Your task to perform on an android device: refresh tabs in the chrome app Image 0: 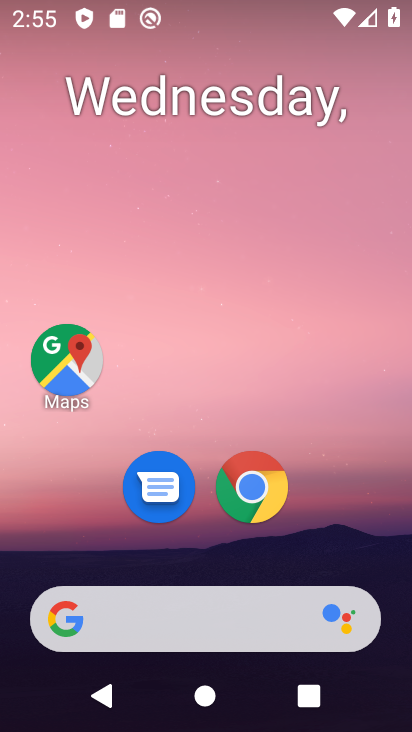
Step 0: click (354, 531)
Your task to perform on an android device: refresh tabs in the chrome app Image 1: 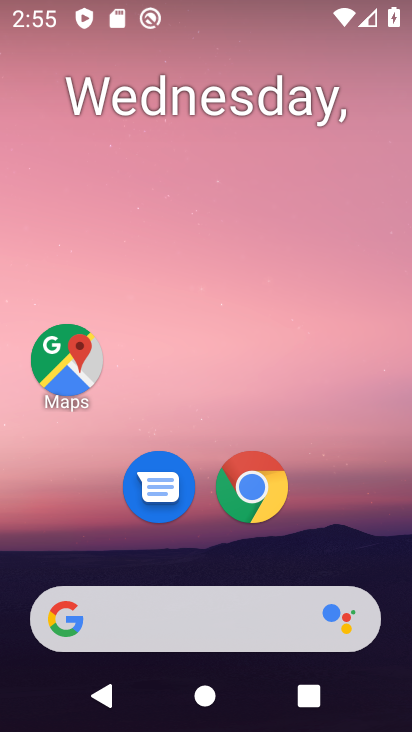
Step 1: drag from (353, 532) to (350, 156)
Your task to perform on an android device: refresh tabs in the chrome app Image 2: 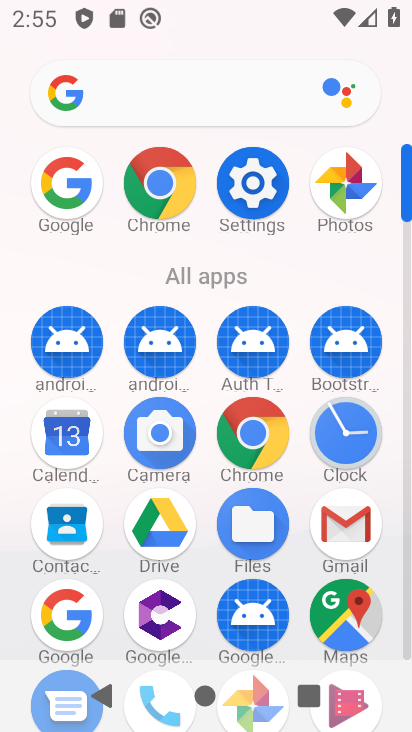
Step 2: click (166, 217)
Your task to perform on an android device: refresh tabs in the chrome app Image 3: 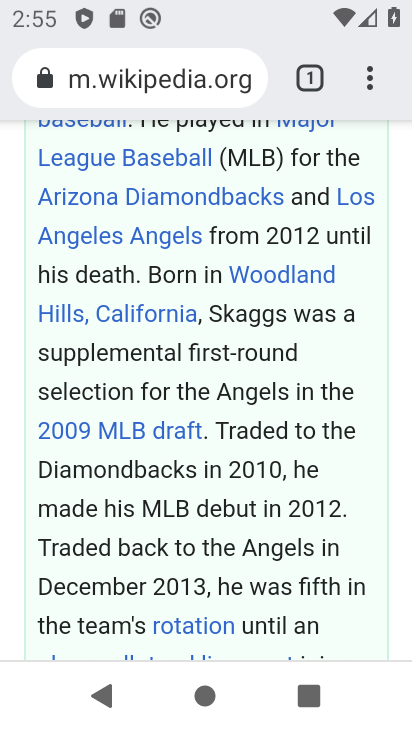
Step 3: click (365, 89)
Your task to perform on an android device: refresh tabs in the chrome app Image 4: 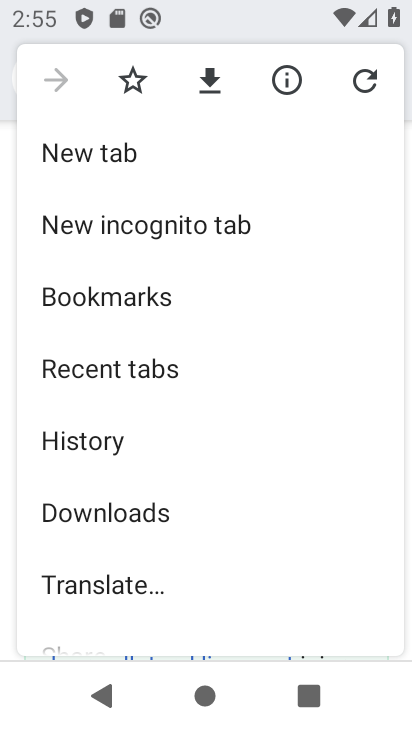
Step 4: click (371, 86)
Your task to perform on an android device: refresh tabs in the chrome app Image 5: 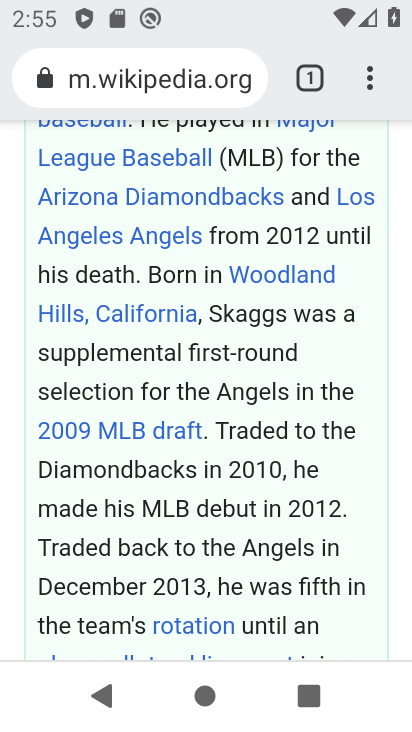
Step 5: task complete